Your task to perform on an android device: What's the weather? Image 0: 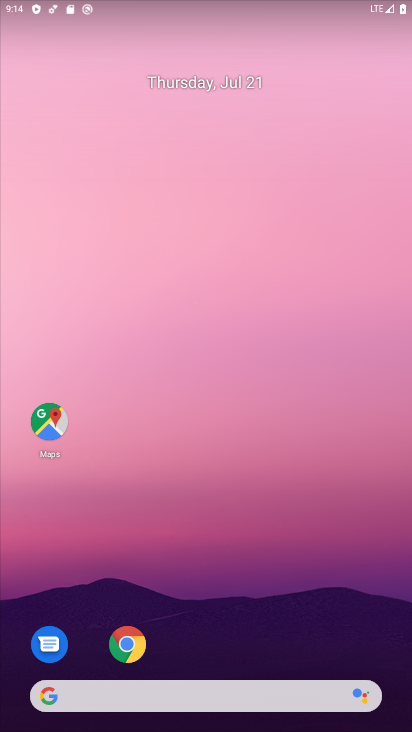
Step 0: drag from (181, 606) to (190, 103)
Your task to perform on an android device: What's the weather? Image 1: 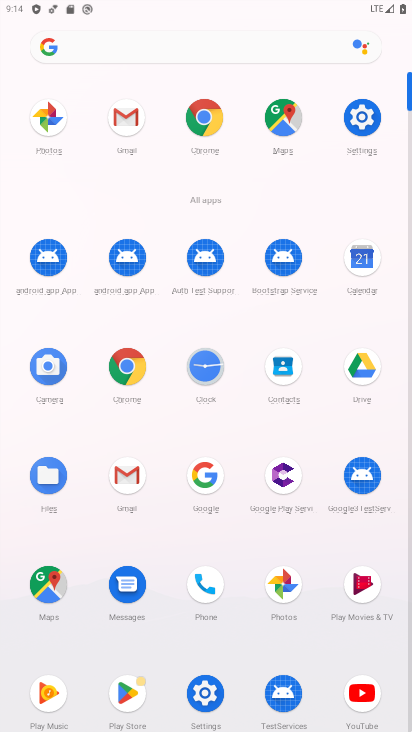
Step 1: click (204, 471)
Your task to perform on an android device: What's the weather? Image 2: 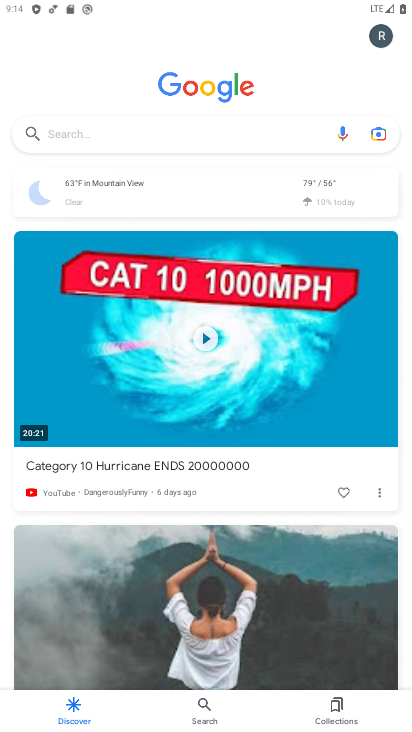
Step 2: click (113, 138)
Your task to perform on an android device: What's the weather? Image 3: 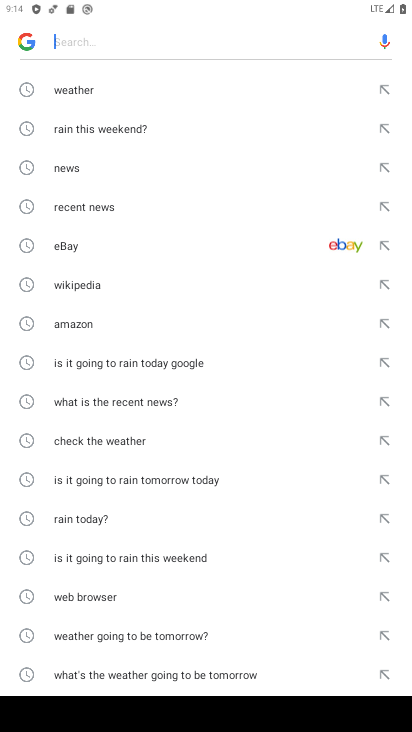
Step 3: click (95, 94)
Your task to perform on an android device: What's the weather? Image 4: 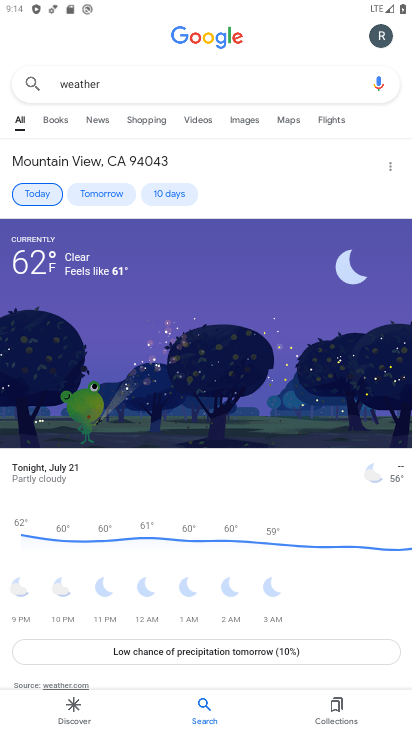
Step 4: task complete